Your task to perform on an android device: toggle location history Image 0: 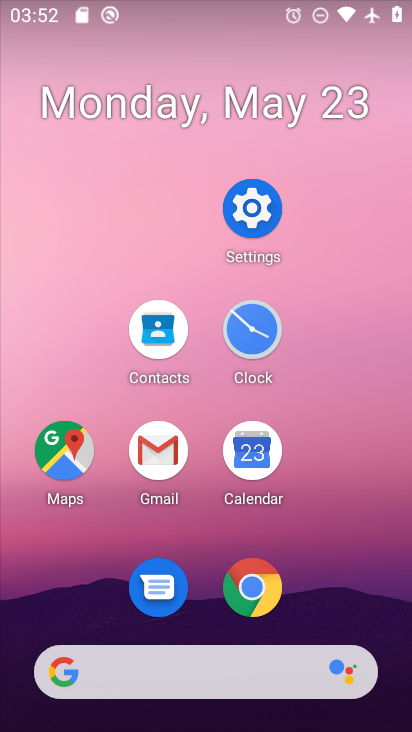
Step 0: click (258, 578)
Your task to perform on an android device: toggle location history Image 1: 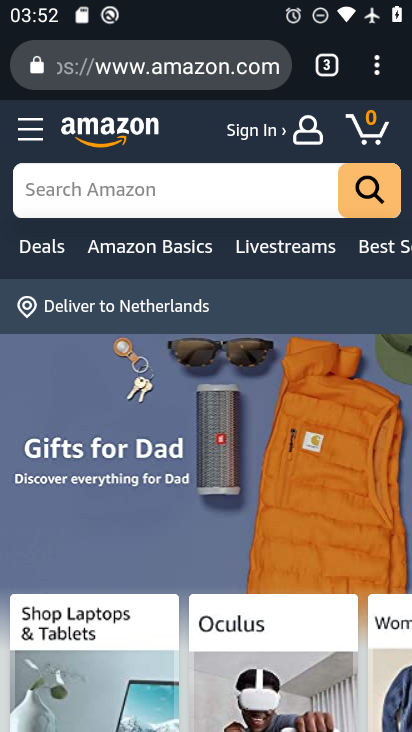
Step 1: press home button
Your task to perform on an android device: toggle location history Image 2: 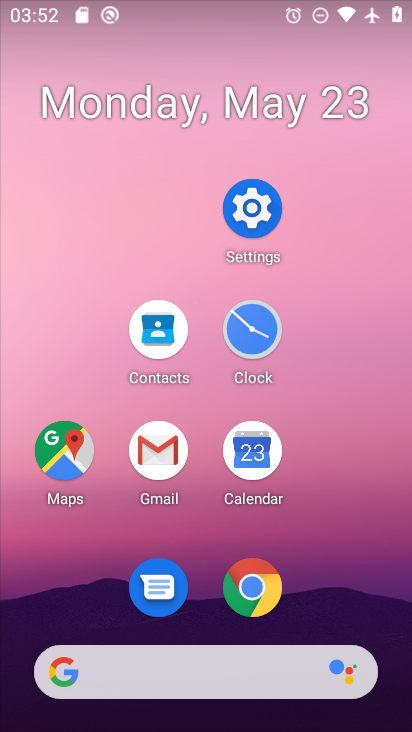
Step 2: click (257, 211)
Your task to perform on an android device: toggle location history Image 3: 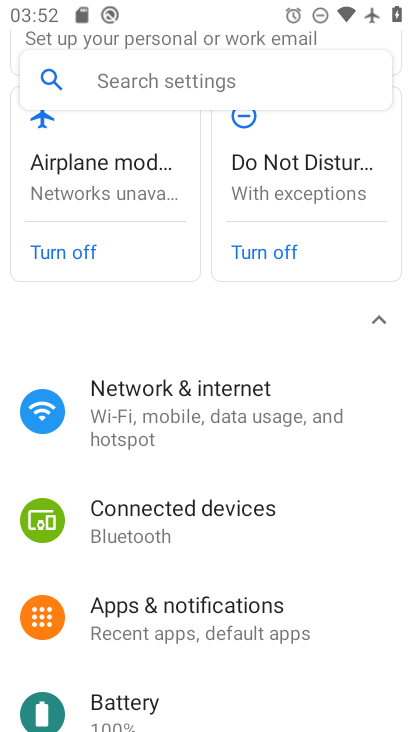
Step 3: drag from (202, 593) to (254, 191)
Your task to perform on an android device: toggle location history Image 4: 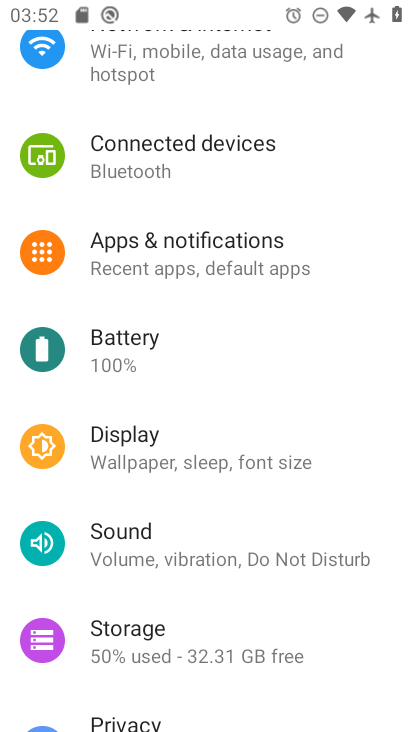
Step 4: drag from (208, 701) to (249, 198)
Your task to perform on an android device: toggle location history Image 5: 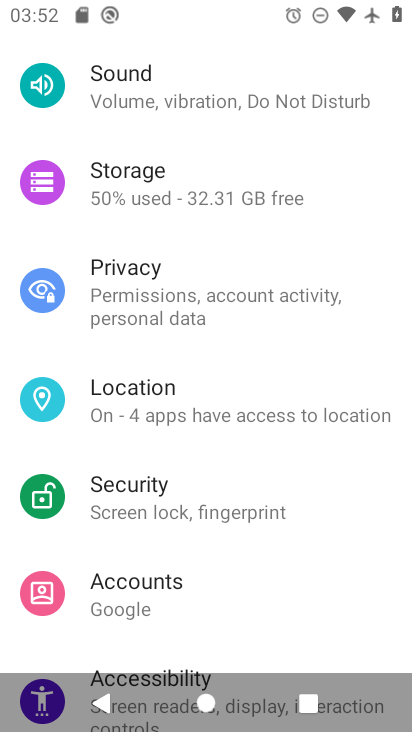
Step 5: click (256, 400)
Your task to perform on an android device: toggle location history Image 6: 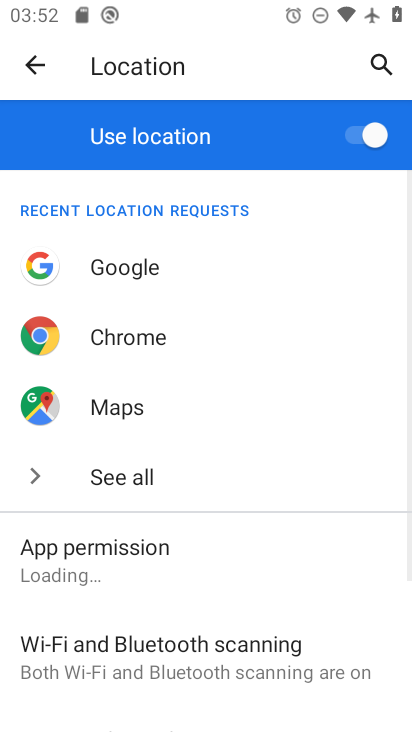
Step 6: drag from (226, 579) to (274, 201)
Your task to perform on an android device: toggle location history Image 7: 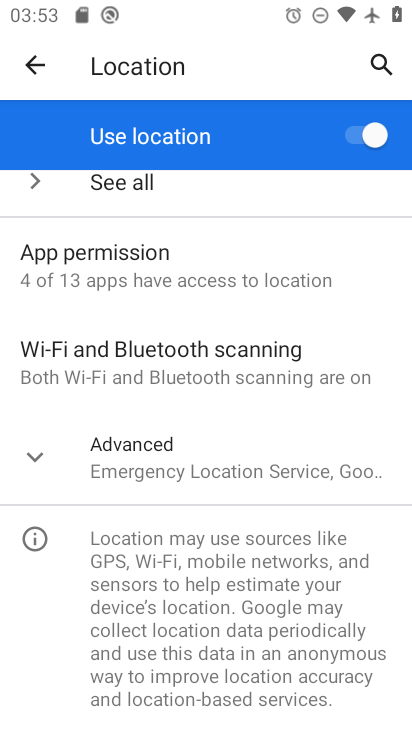
Step 7: click (235, 443)
Your task to perform on an android device: toggle location history Image 8: 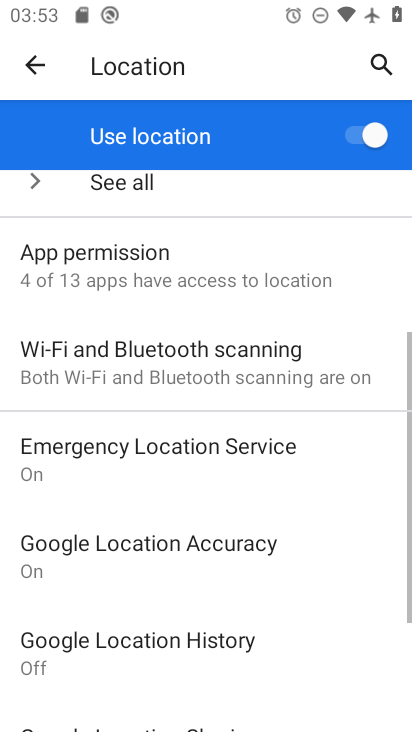
Step 8: click (231, 591)
Your task to perform on an android device: toggle location history Image 9: 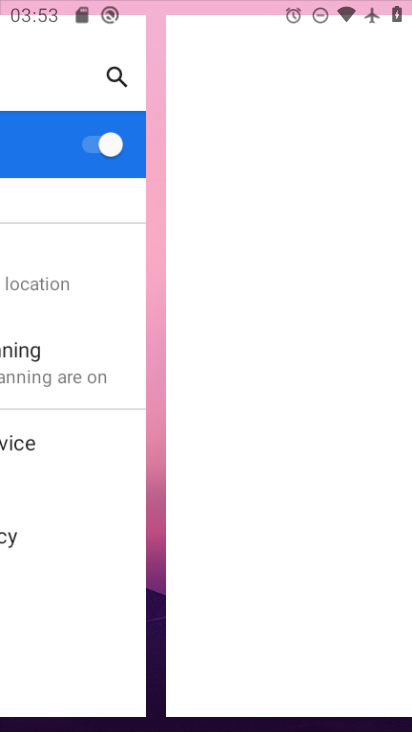
Step 9: drag from (231, 576) to (216, 342)
Your task to perform on an android device: toggle location history Image 10: 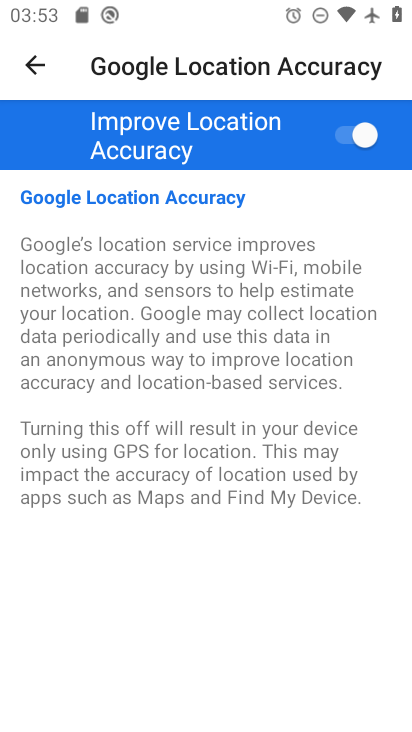
Step 10: click (43, 71)
Your task to perform on an android device: toggle location history Image 11: 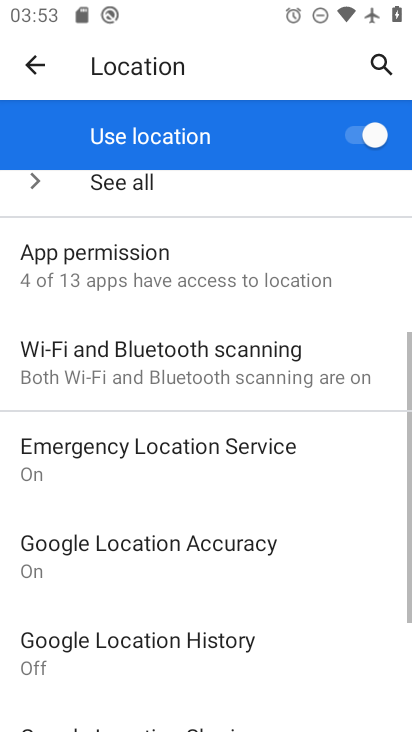
Step 11: click (165, 657)
Your task to perform on an android device: toggle location history Image 12: 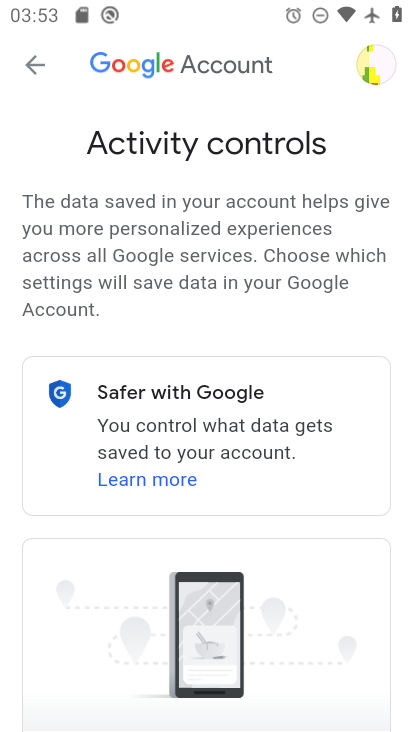
Step 12: drag from (311, 624) to (284, 206)
Your task to perform on an android device: toggle location history Image 13: 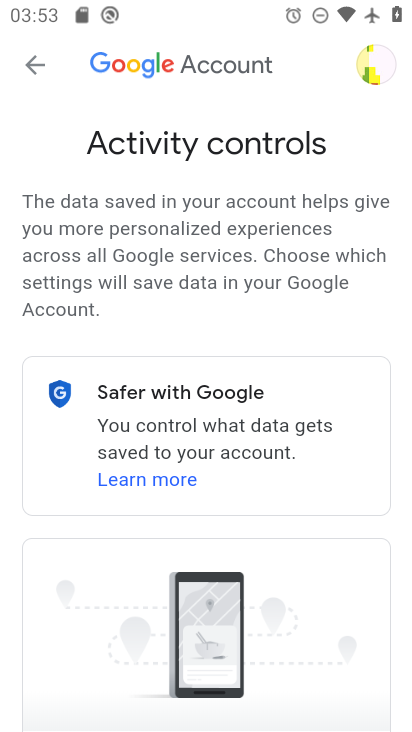
Step 13: drag from (288, 514) to (289, 100)
Your task to perform on an android device: toggle location history Image 14: 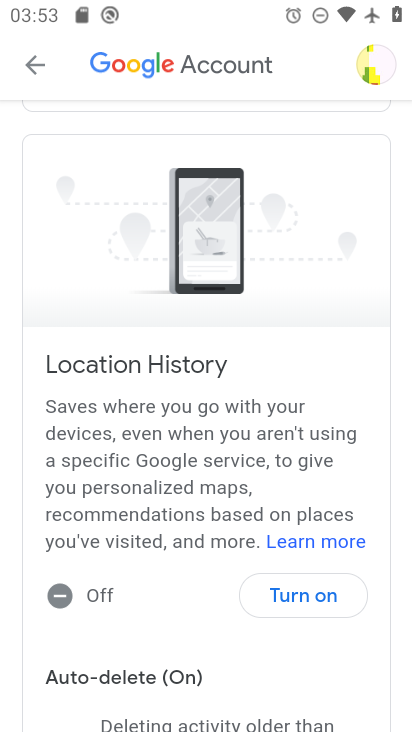
Step 14: click (299, 594)
Your task to perform on an android device: toggle location history Image 15: 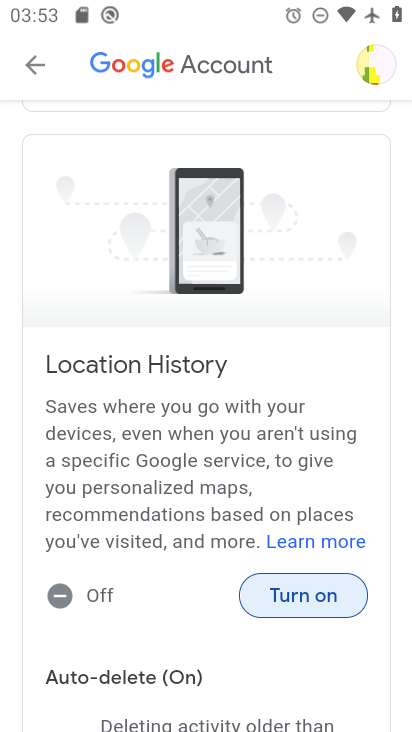
Step 15: task complete